Your task to perform on an android device: turn off airplane mode Image 0: 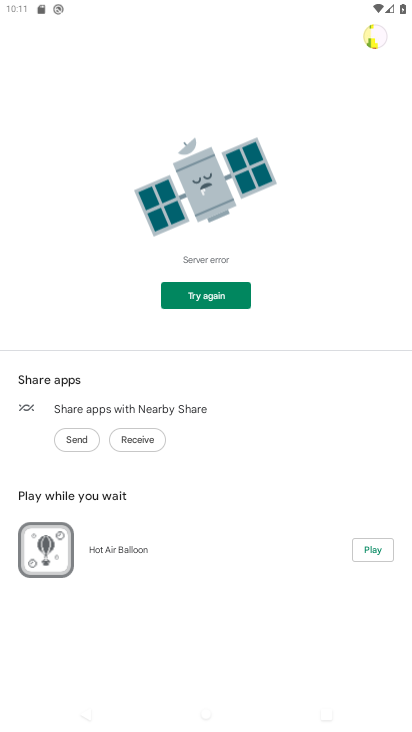
Step 0: press home button
Your task to perform on an android device: turn off airplane mode Image 1: 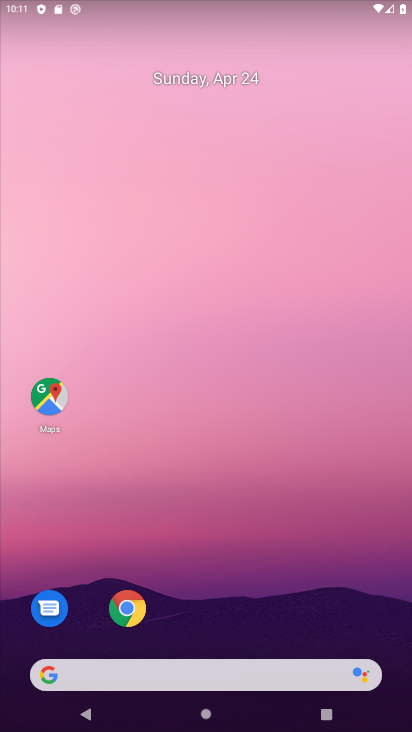
Step 1: drag from (254, 502) to (242, 89)
Your task to perform on an android device: turn off airplane mode Image 2: 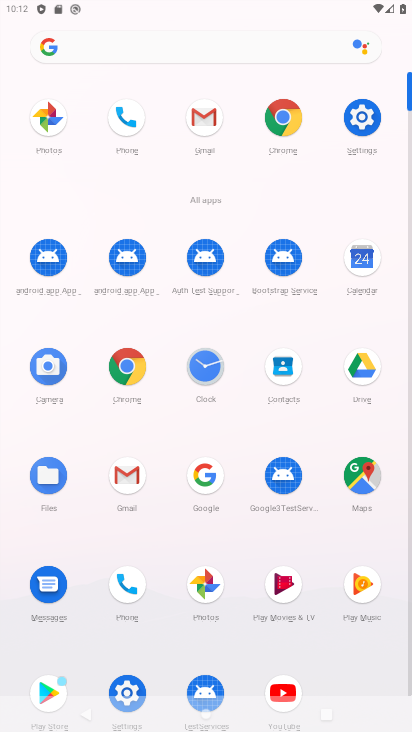
Step 2: click (348, 125)
Your task to perform on an android device: turn off airplane mode Image 3: 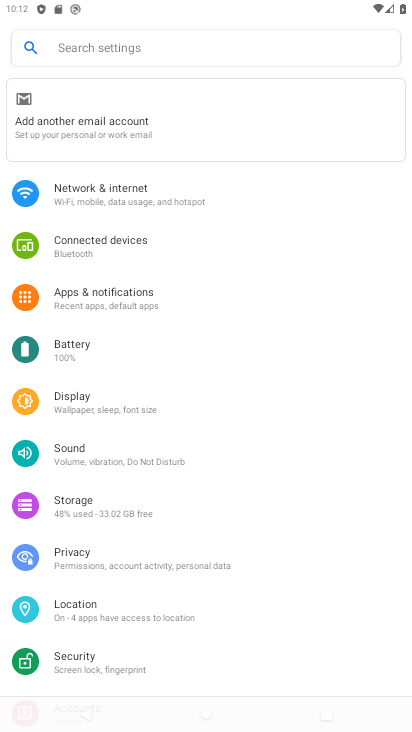
Step 3: click (109, 190)
Your task to perform on an android device: turn off airplane mode Image 4: 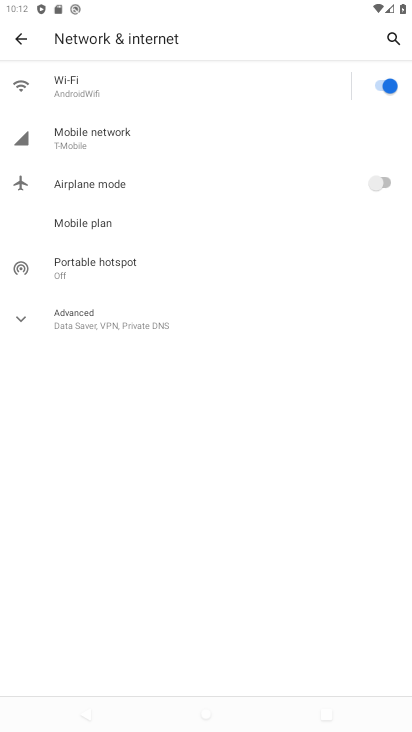
Step 4: click (110, 190)
Your task to perform on an android device: turn off airplane mode Image 5: 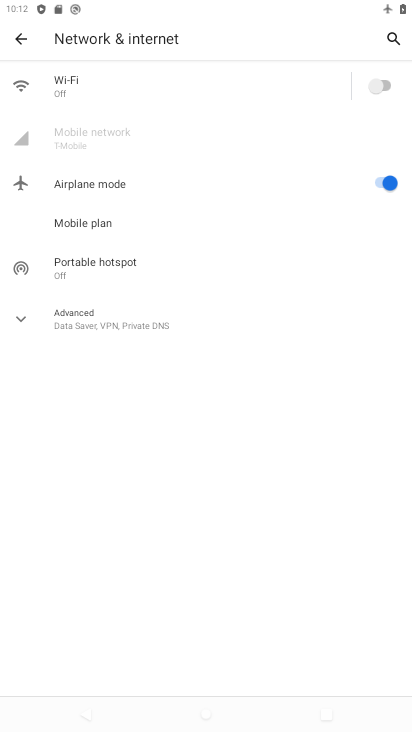
Step 5: click (148, 186)
Your task to perform on an android device: turn off airplane mode Image 6: 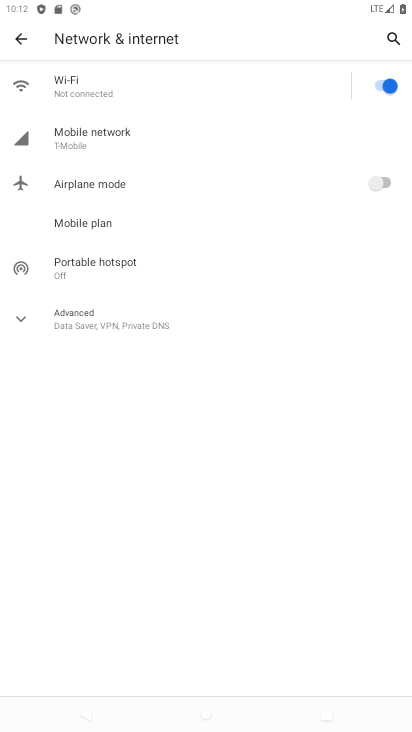
Step 6: task complete